Your task to perform on an android device: check storage Image 0: 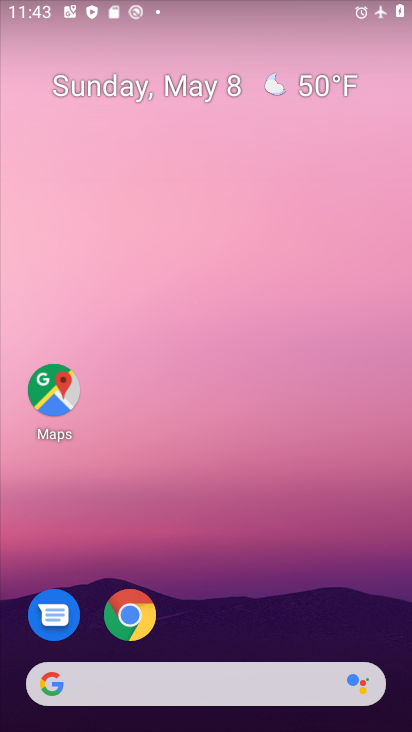
Step 0: drag from (315, 704) to (360, 293)
Your task to perform on an android device: check storage Image 1: 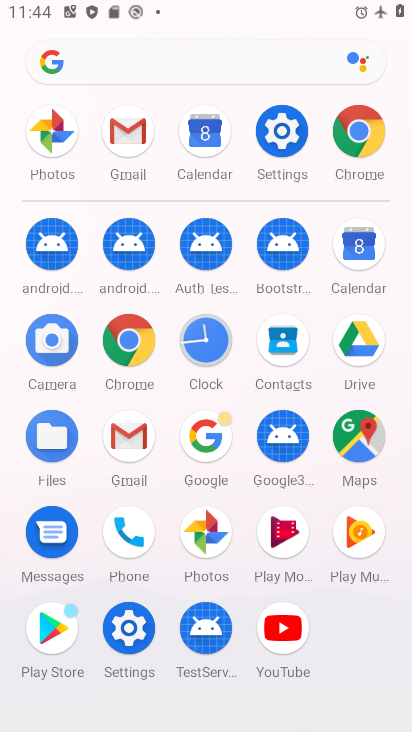
Step 1: click (283, 149)
Your task to perform on an android device: check storage Image 2: 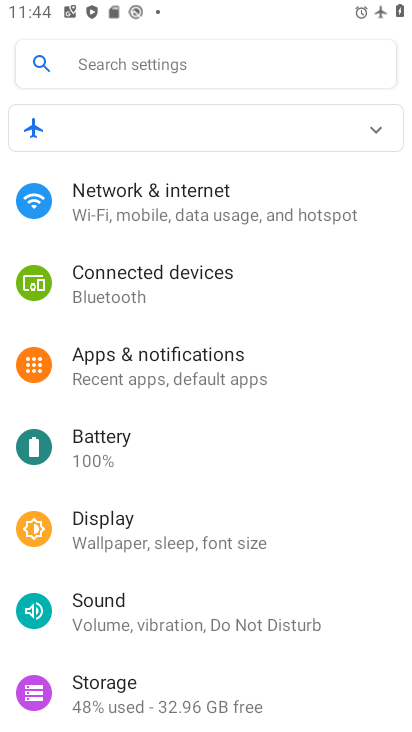
Step 2: click (171, 79)
Your task to perform on an android device: check storage Image 3: 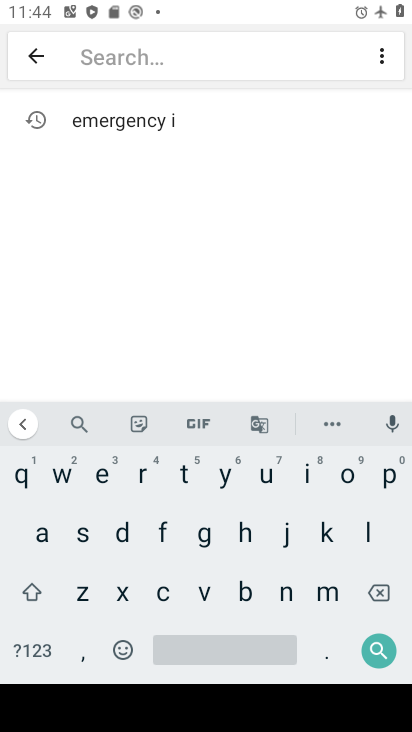
Step 3: click (87, 532)
Your task to perform on an android device: check storage Image 4: 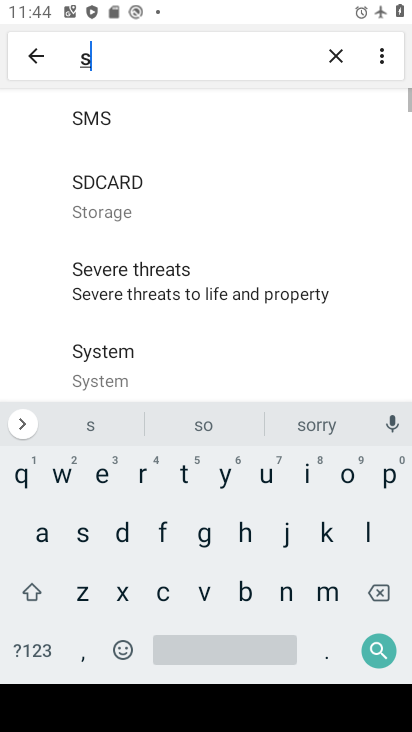
Step 4: click (180, 470)
Your task to perform on an android device: check storage Image 5: 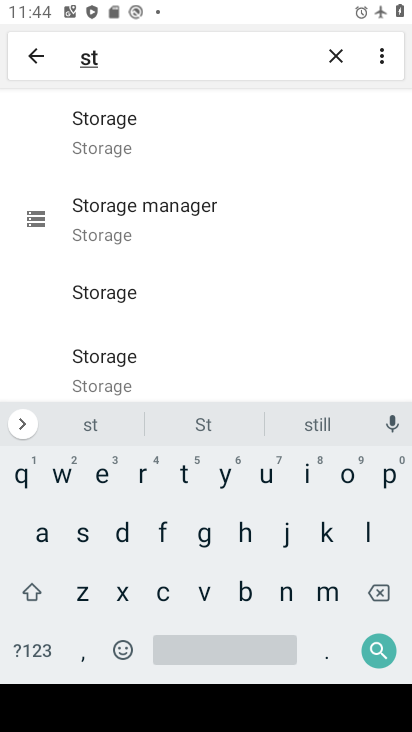
Step 5: click (162, 131)
Your task to perform on an android device: check storage Image 6: 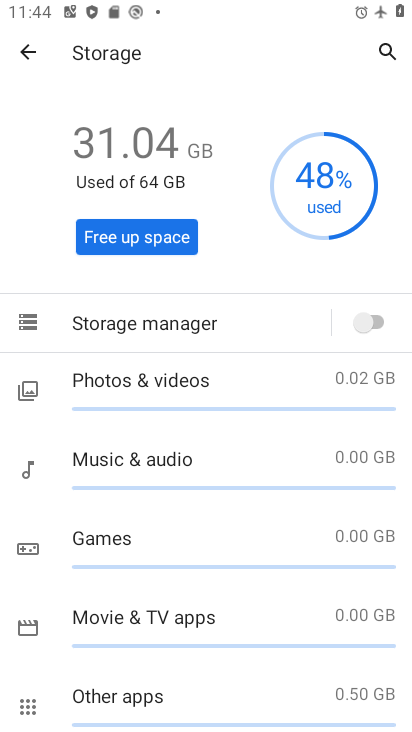
Step 6: task complete